Your task to perform on an android device: Play the last video I watched on Youtube Image 0: 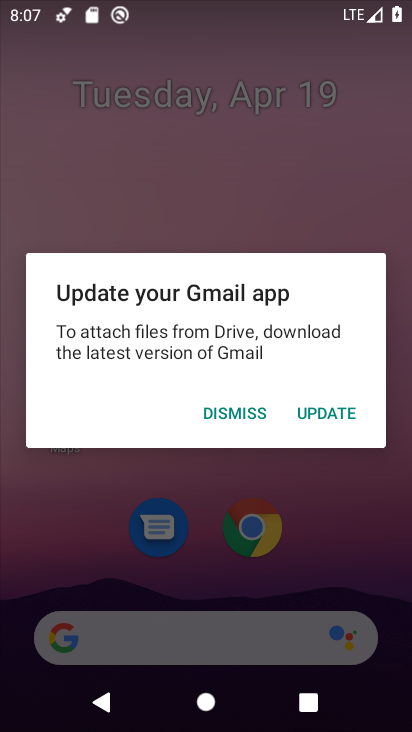
Step 0: press home button
Your task to perform on an android device: Play the last video I watched on Youtube Image 1: 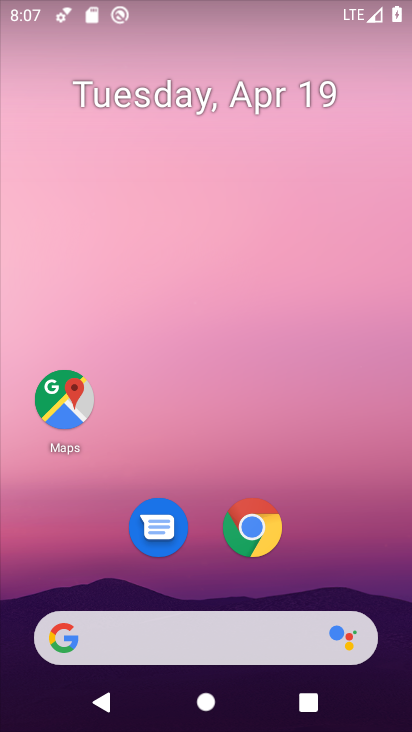
Step 1: drag from (333, 538) to (335, 135)
Your task to perform on an android device: Play the last video I watched on Youtube Image 2: 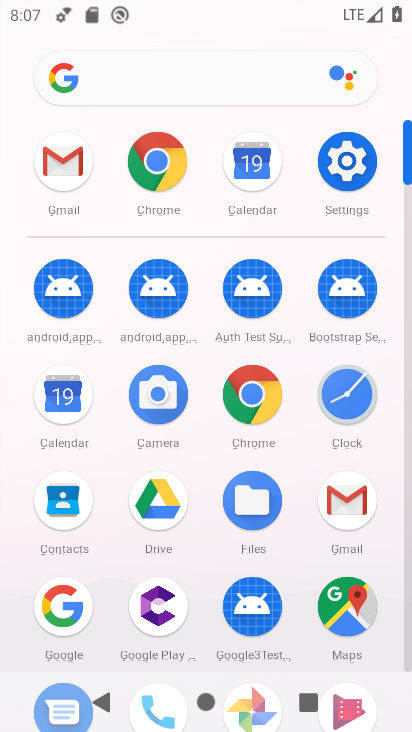
Step 2: drag from (286, 585) to (306, 175)
Your task to perform on an android device: Play the last video I watched on Youtube Image 3: 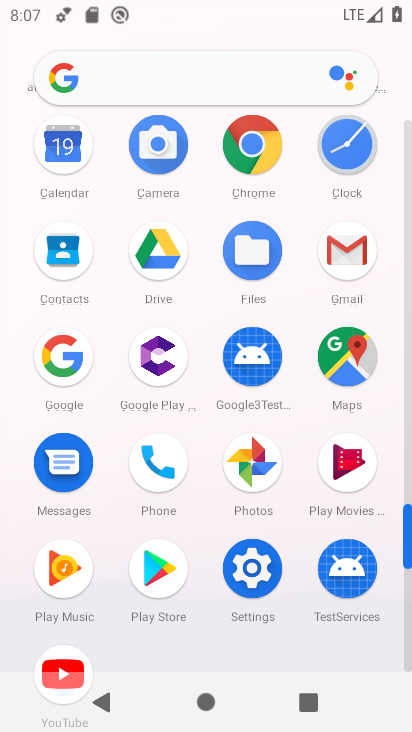
Step 3: click (79, 654)
Your task to perform on an android device: Play the last video I watched on Youtube Image 4: 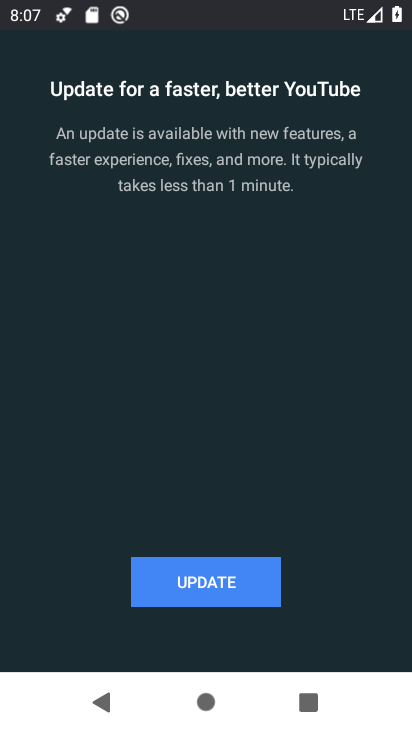
Step 4: click (157, 579)
Your task to perform on an android device: Play the last video I watched on Youtube Image 5: 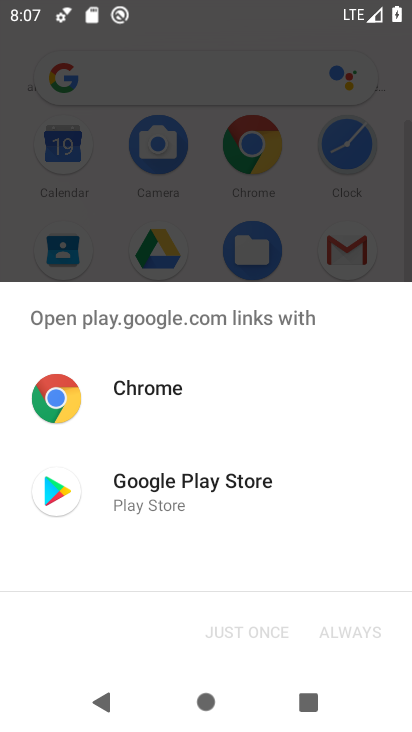
Step 5: click (188, 491)
Your task to perform on an android device: Play the last video I watched on Youtube Image 6: 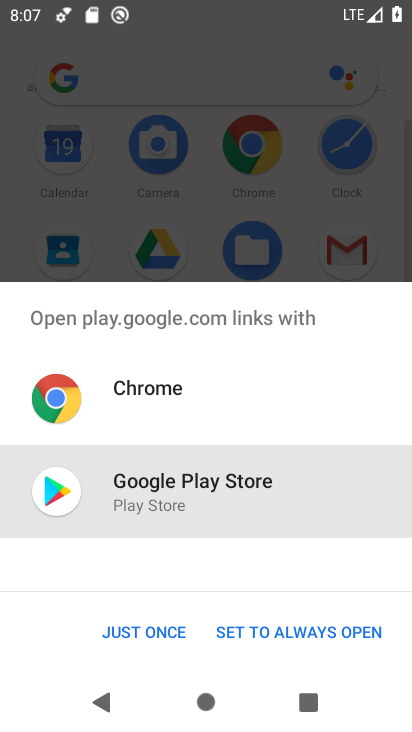
Step 6: click (252, 641)
Your task to perform on an android device: Play the last video I watched on Youtube Image 7: 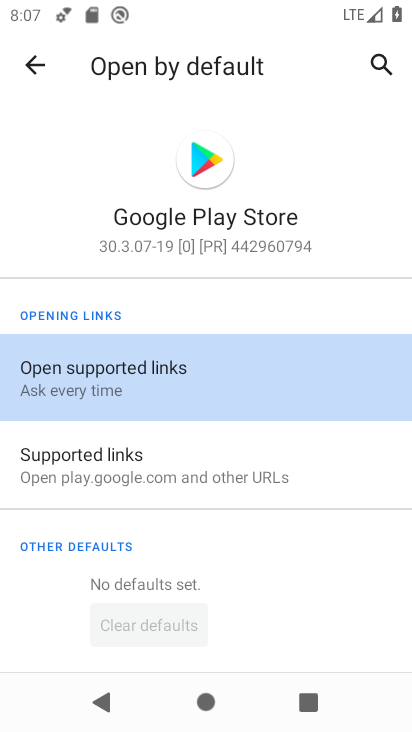
Step 7: click (24, 60)
Your task to perform on an android device: Play the last video I watched on Youtube Image 8: 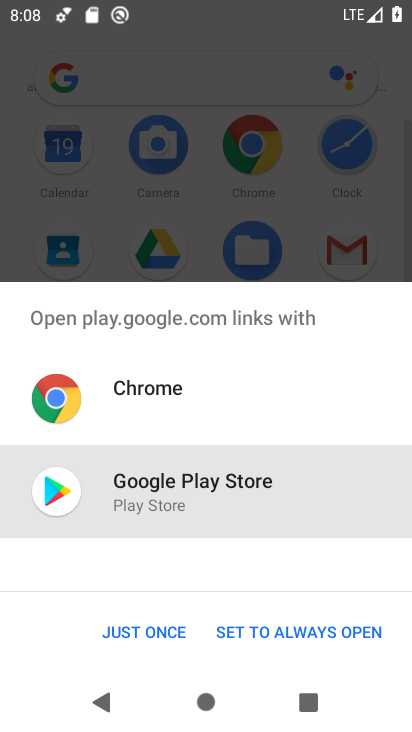
Step 8: click (155, 630)
Your task to perform on an android device: Play the last video I watched on Youtube Image 9: 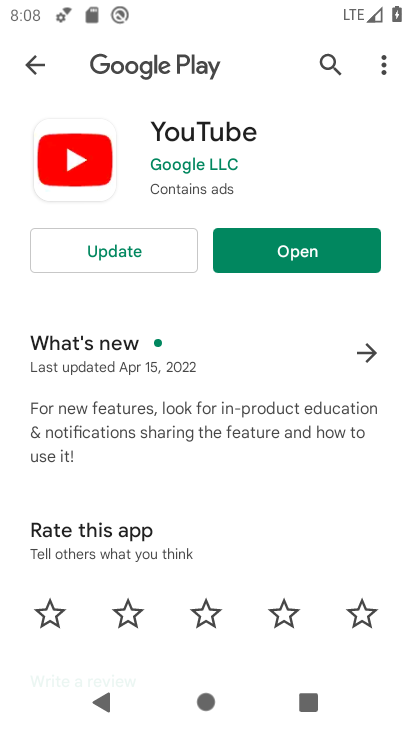
Step 9: click (140, 262)
Your task to perform on an android device: Play the last video I watched on Youtube Image 10: 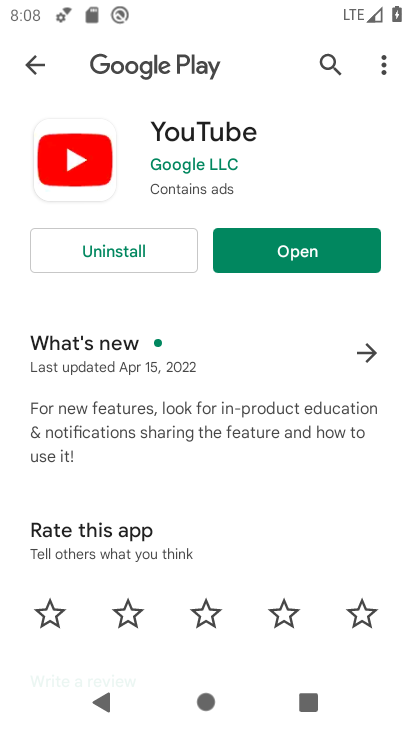
Step 10: click (261, 244)
Your task to perform on an android device: Play the last video I watched on Youtube Image 11: 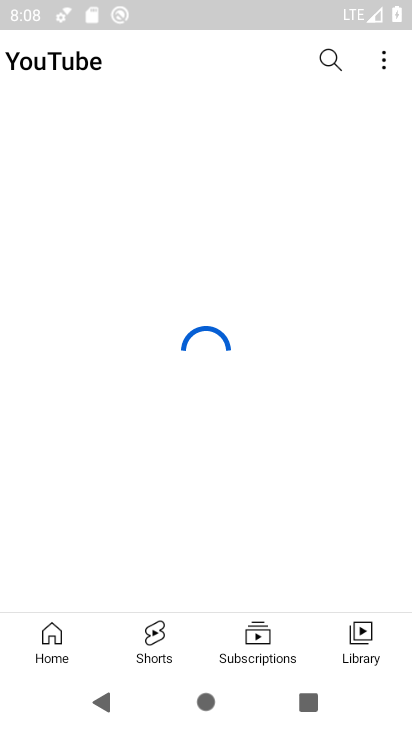
Step 11: click (359, 654)
Your task to perform on an android device: Play the last video I watched on Youtube Image 12: 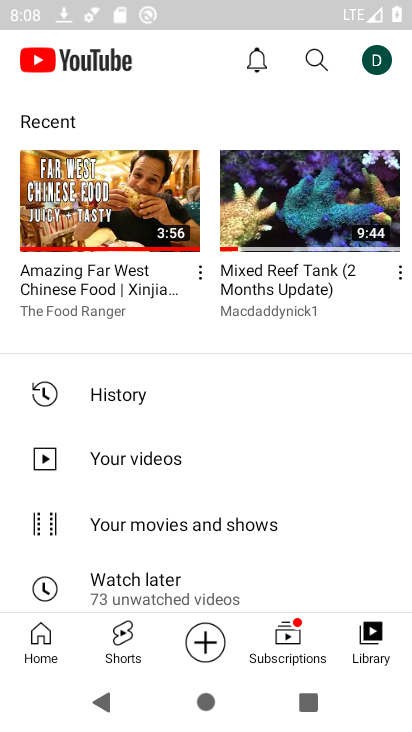
Step 12: click (92, 192)
Your task to perform on an android device: Play the last video I watched on Youtube Image 13: 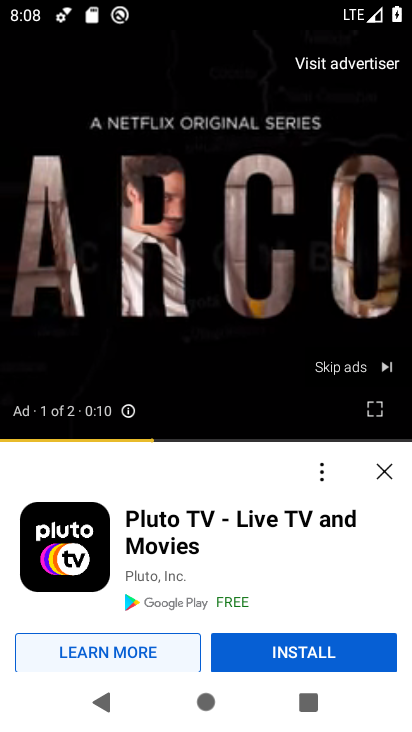
Step 13: click (362, 366)
Your task to perform on an android device: Play the last video I watched on Youtube Image 14: 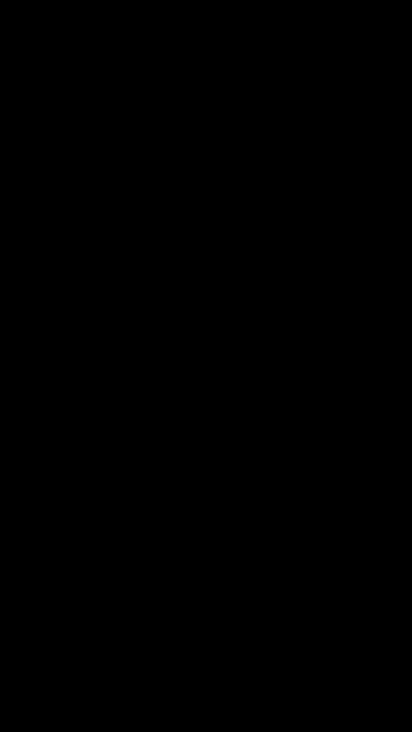
Step 14: task complete